Your task to perform on an android device: Go to display settings Image 0: 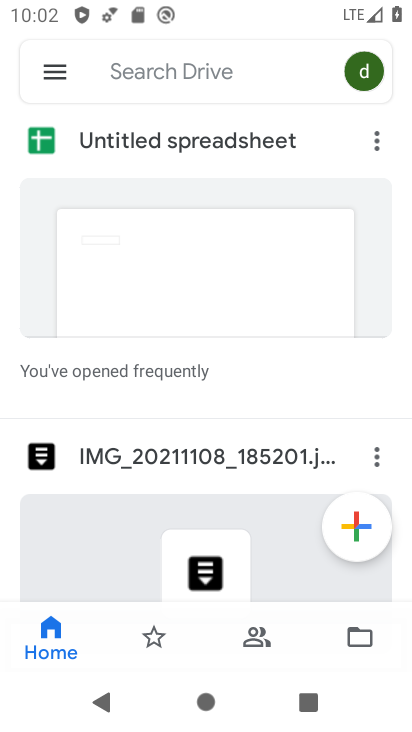
Step 0: press home button
Your task to perform on an android device: Go to display settings Image 1: 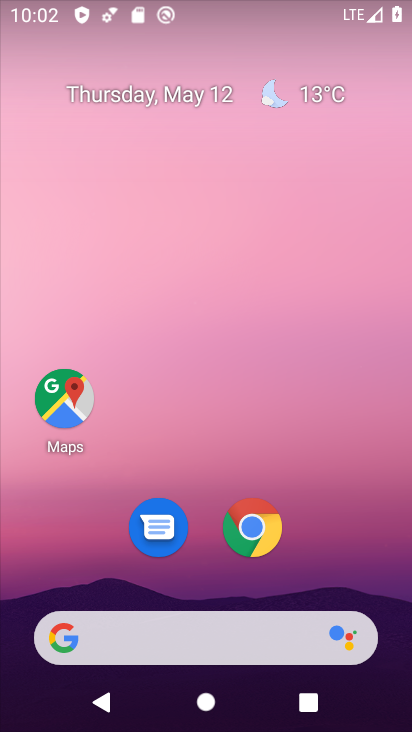
Step 1: drag from (325, 574) to (215, 73)
Your task to perform on an android device: Go to display settings Image 2: 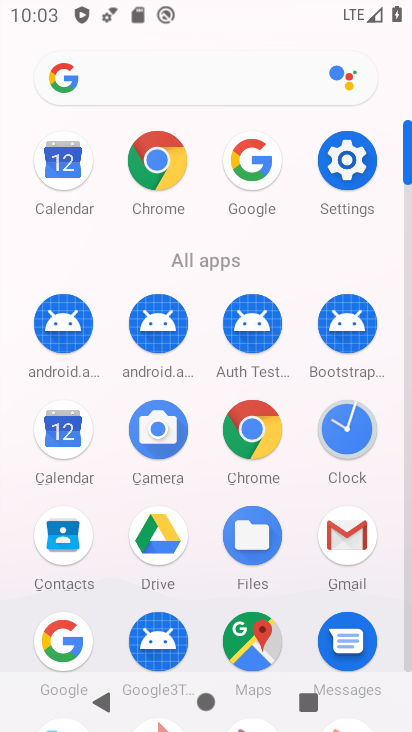
Step 2: click (348, 160)
Your task to perform on an android device: Go to display settings Image 3: 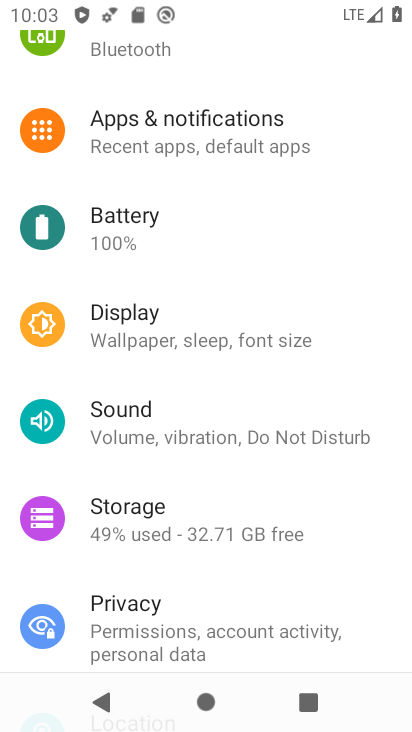
Step 3: click (114, 347)
Your task to perform on an android device: Go to display settings Image 4: 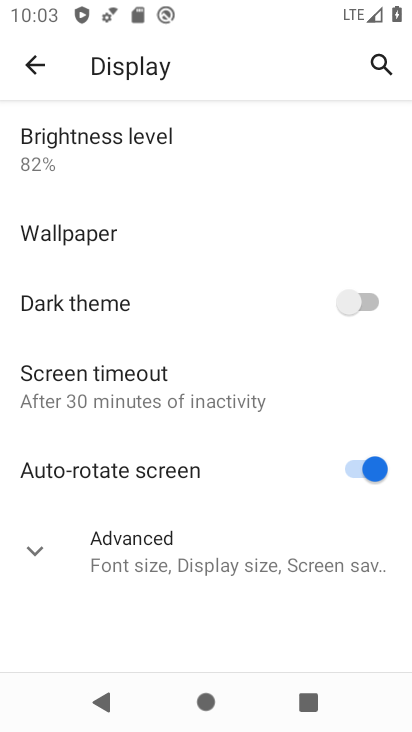
Step 4: task complete